Your task to perform on an android device: See recent photos Image 0: 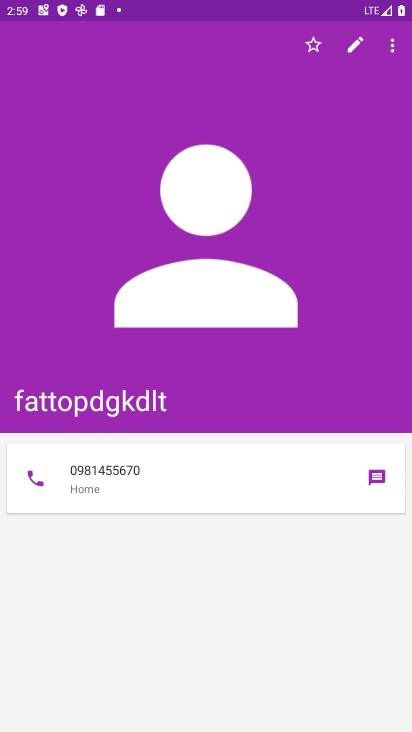
Step 0: press home button
Your task to perform on an android device: See recent photos Image 1: 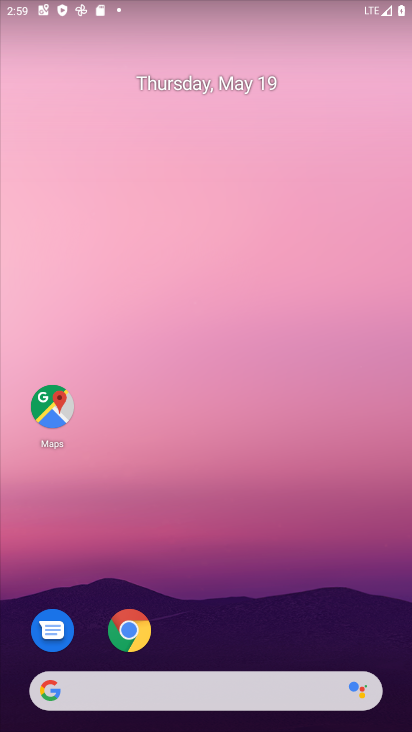
Step 1: drag from (384, 637) to (289, 74)
Your task to perform on an android device: See recent photos Image 2: 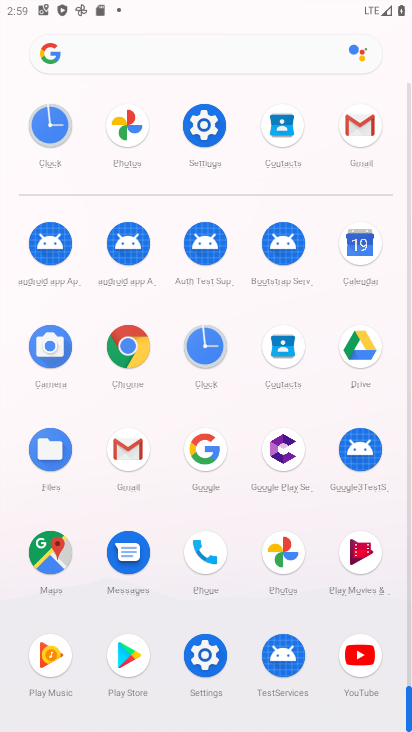
Step 2: click (283, 546)
Your task to perform on an android device: See recent photos Image 3: 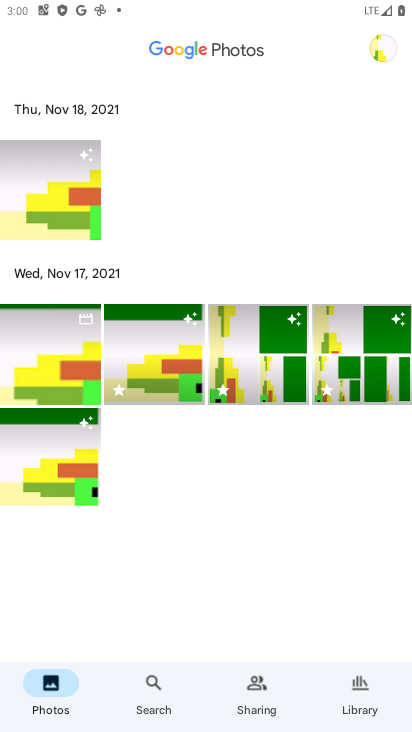
Step 3: task complete